Your task to perform on an android device: Go to notification settings Image 0: 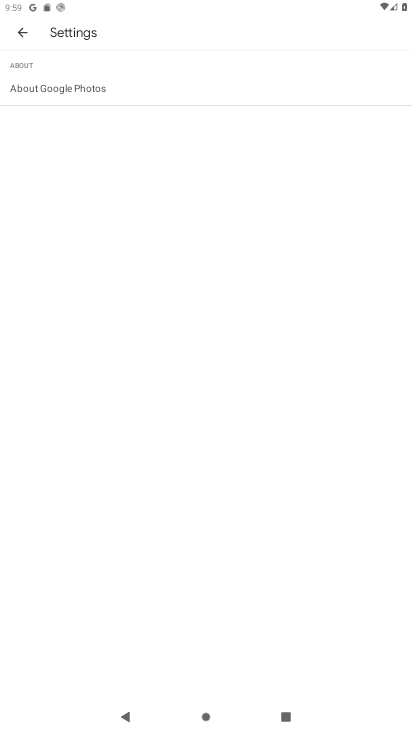
Step 0: press home button
Your task to perform on an android device: Go to notification settings Image 1: 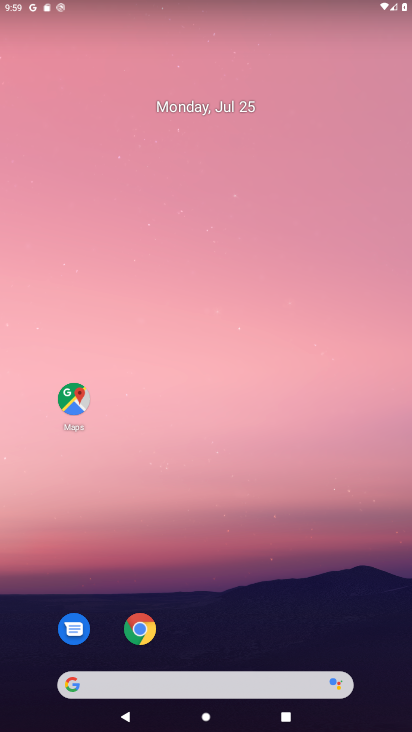
Step 1: drag from (258, 603) to (345, 153)
Your task to perform on an android device: Go to notification settings Image 2: 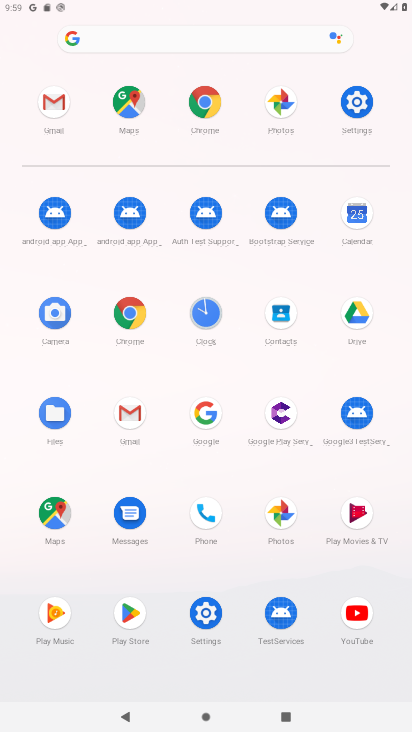
Step 2: click (204, 610)
Your task to perform on an android device: Go to notification settings Image 3: 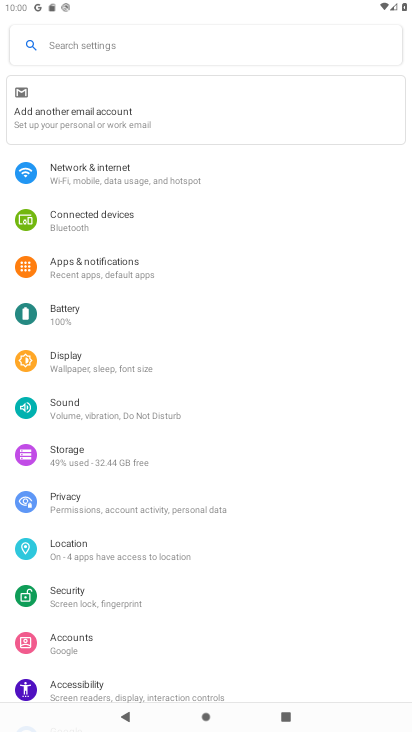
Step 3: click (161, 277)
Your task to perform on an android device: Go to notification settings Image 4: 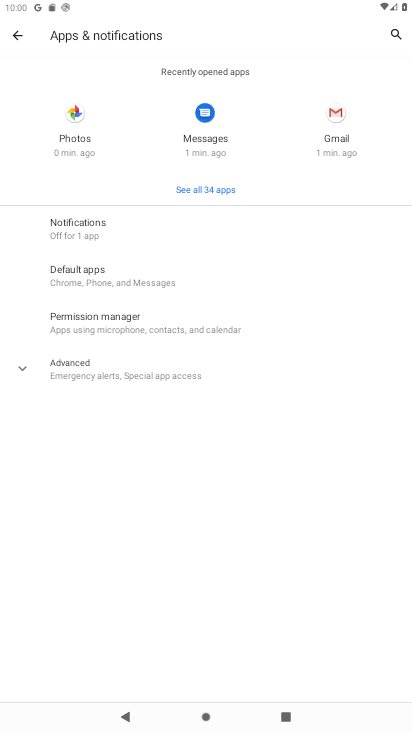
Step 4: click (161, 277)
Your task to perform on an android device: Go to notification settings Image 5: 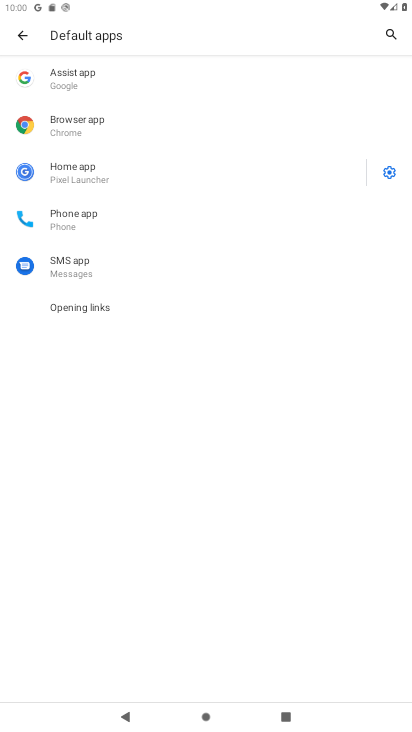
Step 5: task complete